Your task to perform on an android device: Open calendar and show me the first week of next month Image 0: 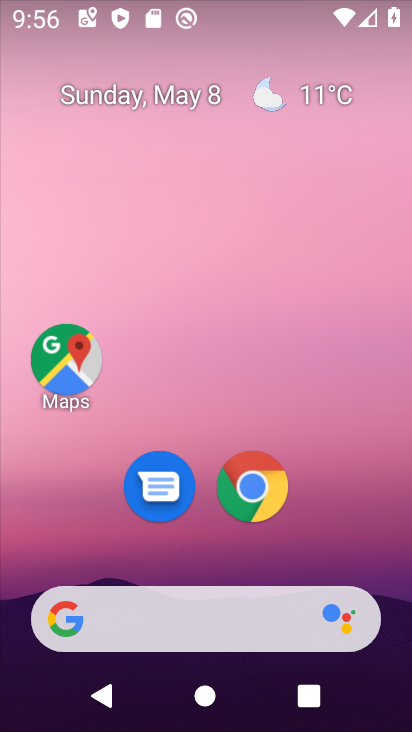
Step 0: drag from (301, 567) to (294, 0)
Your task to perform on an android device: Open calendar and show me the first week of next month Image 1: 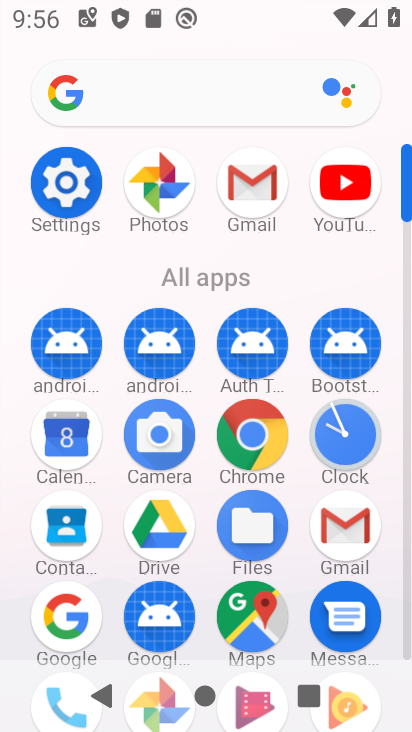
Step 1: click (78, 424)
Your task to perform on an android device: Open calendar and show me the first week of next month Image 2: 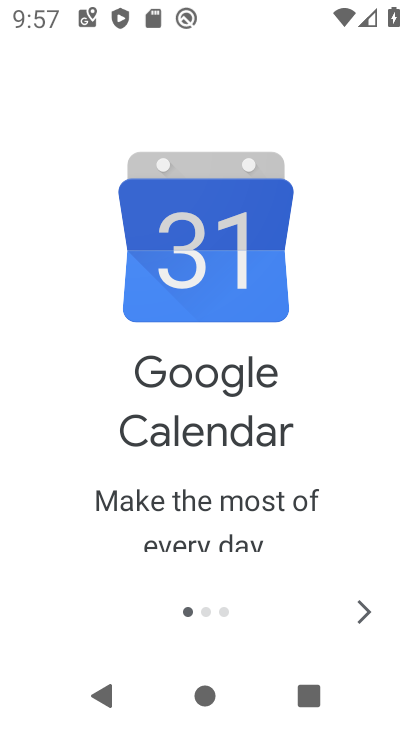
Step 2: click (361, 613)
Your task to perform on an android device: Open calendar and show me the first week of next month Image 3: 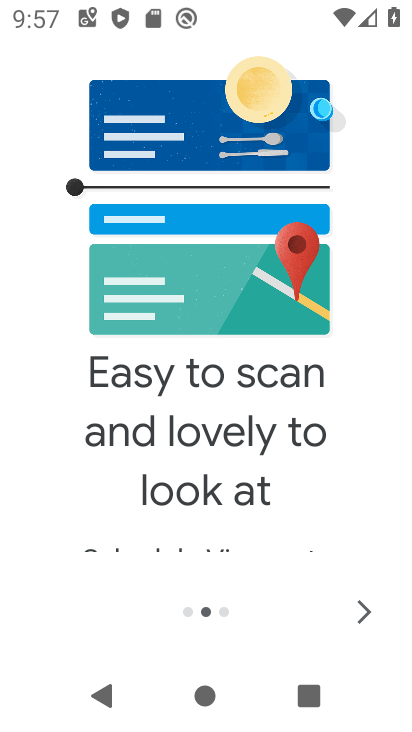
Step 3: click (361, 613)
Your task to perform on an android device: Open calendar and show me the first week of next month Image 4: 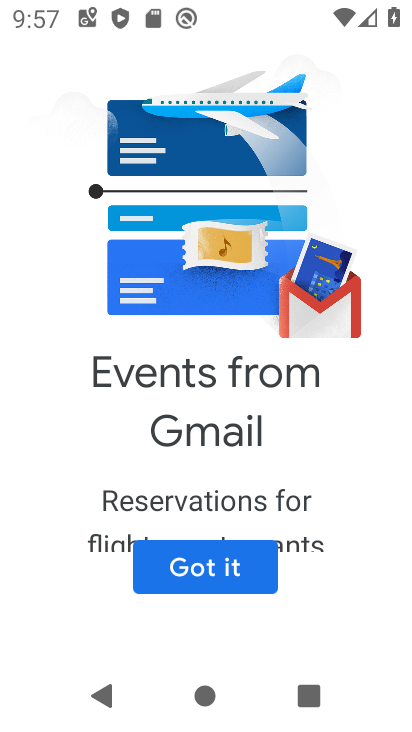
Step 4: click (228, 551)
Your task to perform on an android device: Open calendar and show me the first week of next month Image 5: 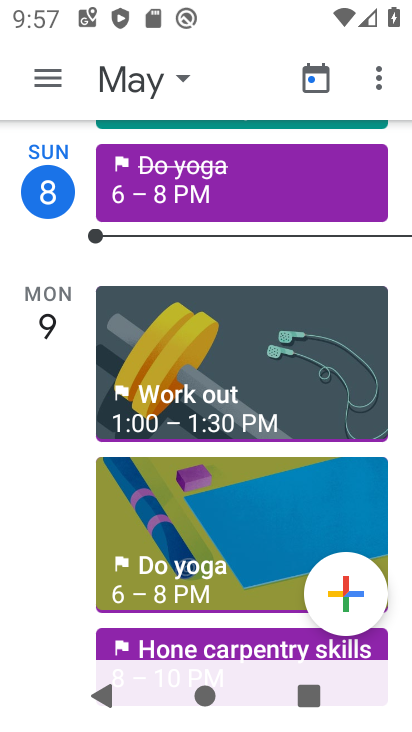
Step 5: click (180, 80)
Your task to perform on an android device: Open calendar and show me the first week of next month Image 6: 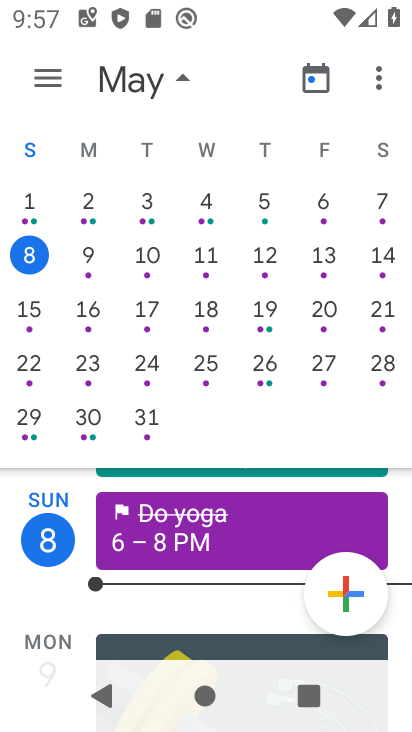
Step 6: task complete